Your task to perform on an android device: Set the phone to "Do not disturb". Image 0: 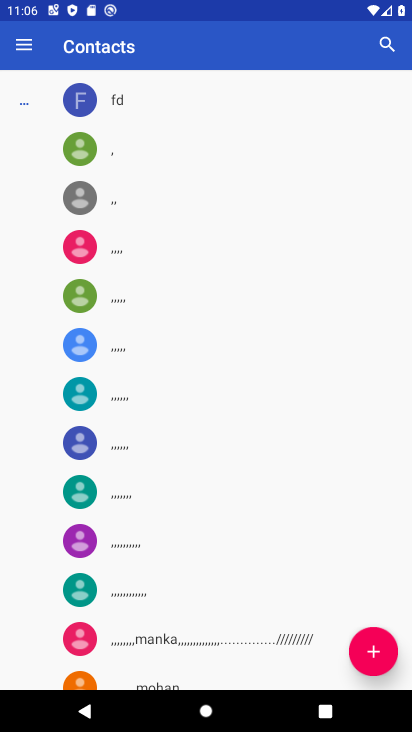
Step 0: drag from (201, 6) to (251, 415)
Your task to perform on an android device: Set the phone to "Do not disturb". Image 1: 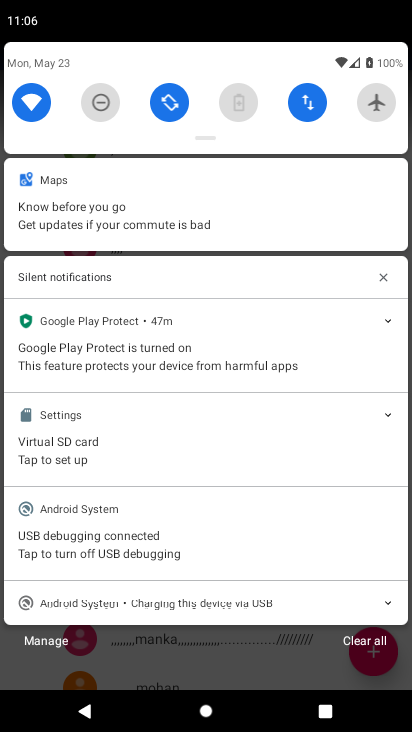
Step 1: click (101, 105)
Your task to perform on an android device: Set the phone to "Do not disturb". Image 2: 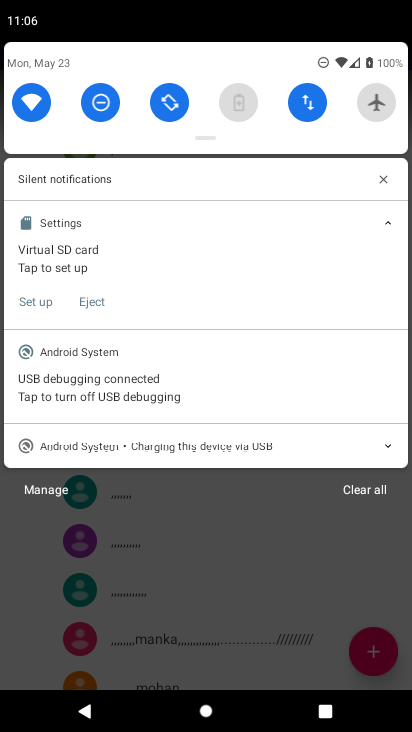
Step 2: task complete